Your task to perform on an android device: Open Reddit.com Image 0: 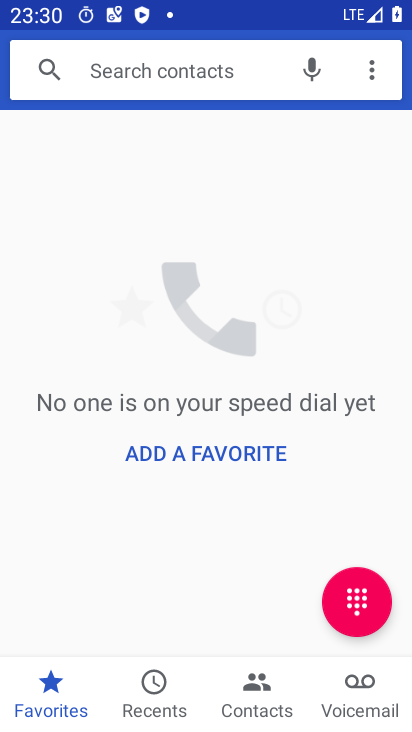
Step 0: press home button
Your task to perform on an android device: Open Reddit.com Image 1: 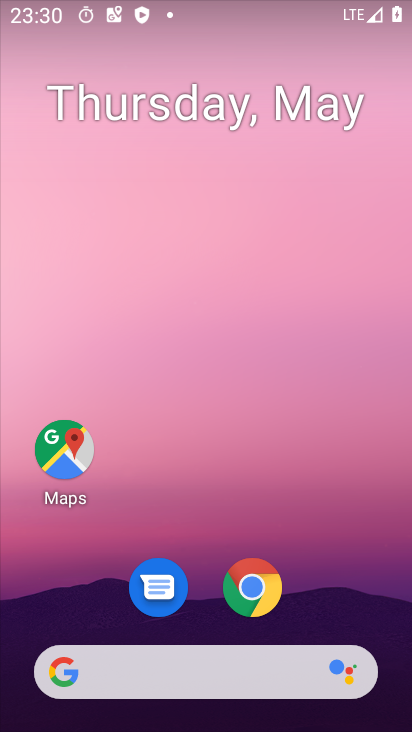
Step 1: click (254, 594)
Your task to perform on an android device: Open Reddit.com Image 2: 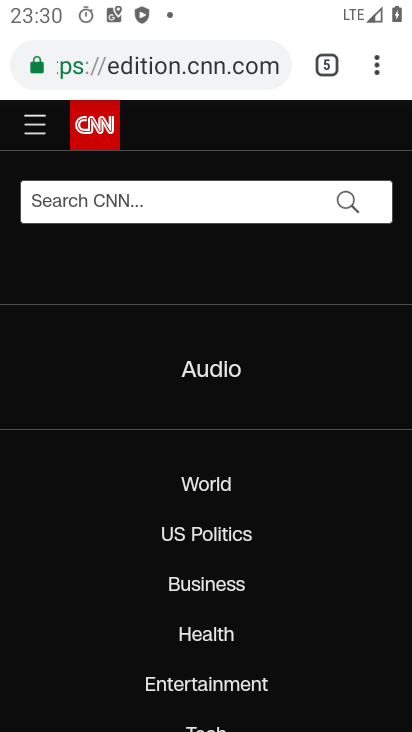
Step 2: click (111, 60)
Your task to perform on an android device: Open Reddit.com Image 3: 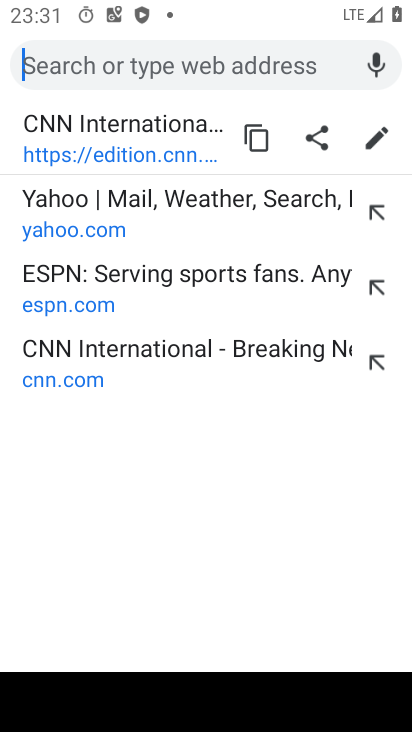
Step 3: type "reddit.com"
Your task to perform on an android device: Open Reddit.com Image 4: 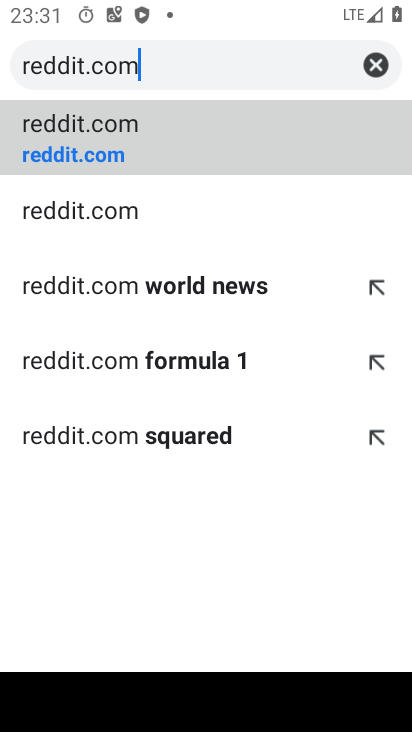
Step 4: click (50, 164)
Your task to perform on an android device: Open Reddit.com Image 5: 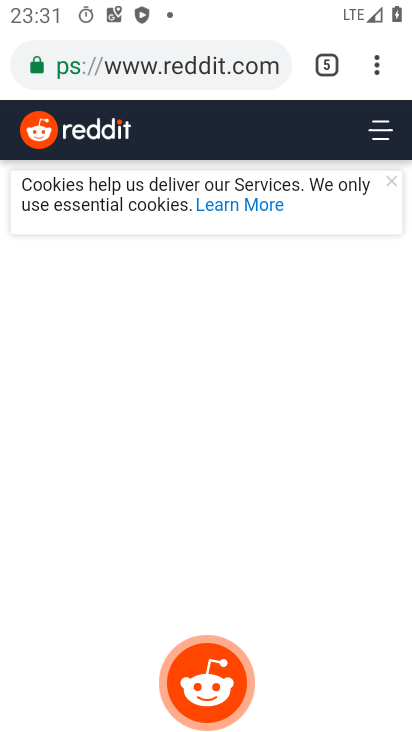
Step 5: task complete